Your task to perform on an android device: add a contact Image 0: 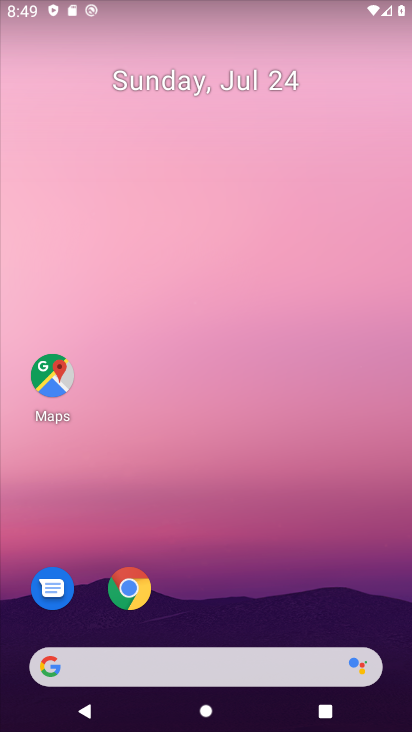
Step 0: drag from (330, 282) to (296, 57)
Your task to perform on an android device: add a contact Image 1: 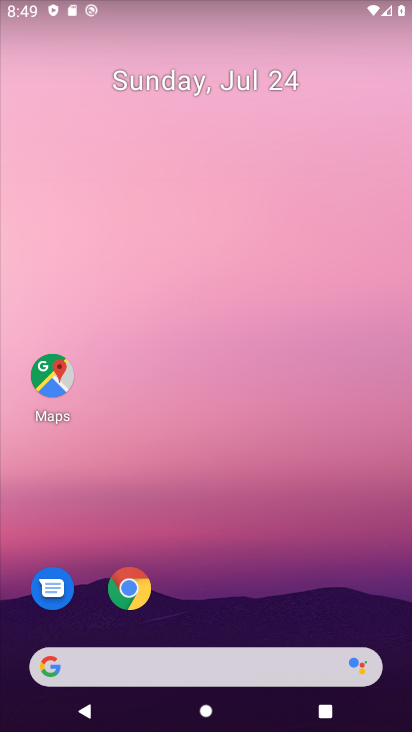
Step 1: drag from (269, 713) to (279, 33)
Your task to perform on an android device: add a contact Image 2: 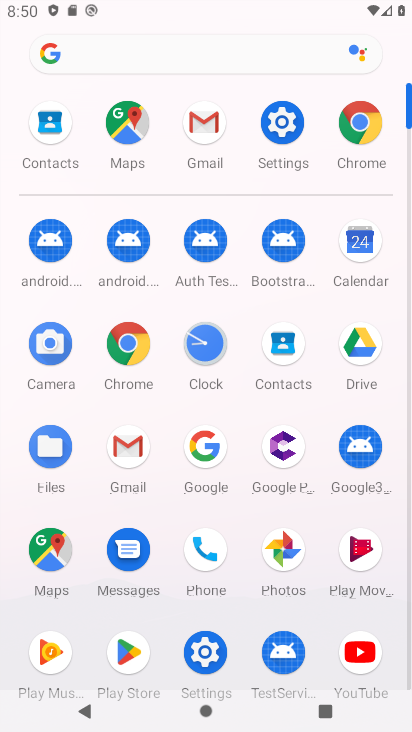
Step 2: click (267, 344)
Your task to perform on an android device: add a contact Image 3: 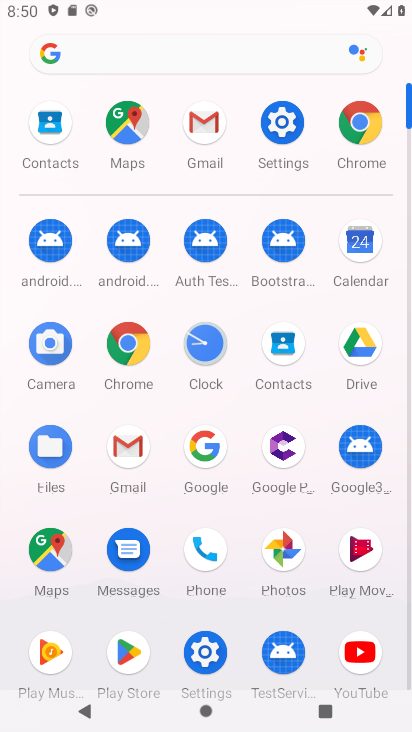
Step 3: click (267, 344)
Your task to perform on an android device: add a contact Image 4: 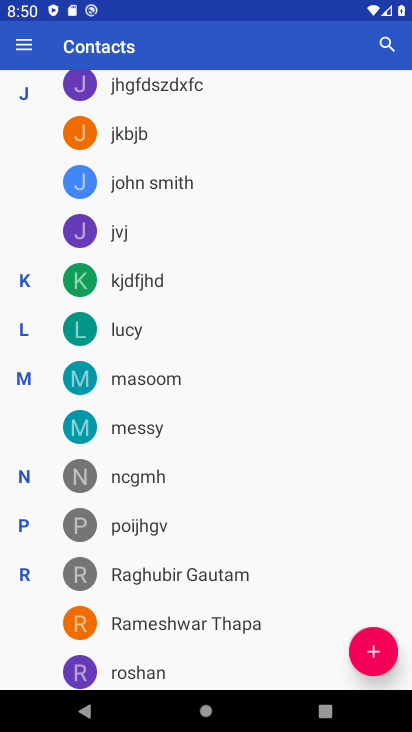
Step 4: click (375, 649)
Your task to perform on an android device: add a contact Image 5: 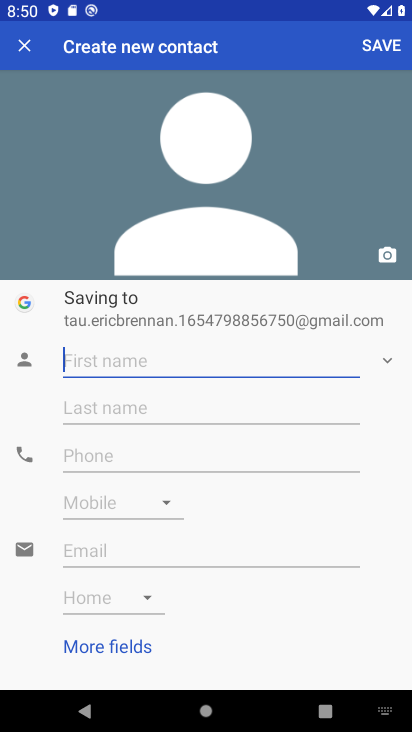
Step 5: type "fghjg"
Your task to perform on an android device: add a contact Image 6: 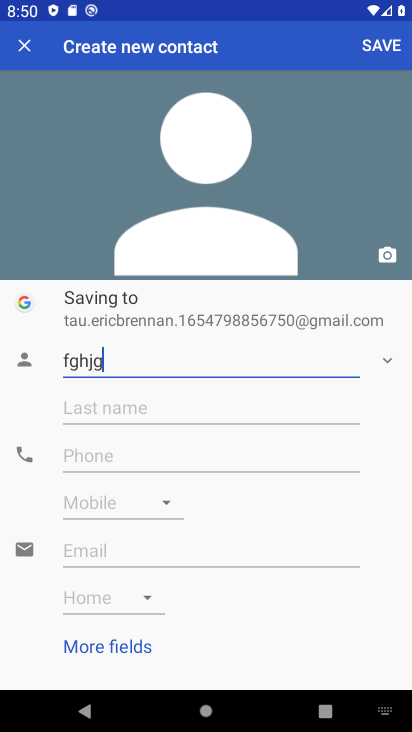
Step 6: click (188, 465)
Your task to perform on an android device: add a contact Image 7: 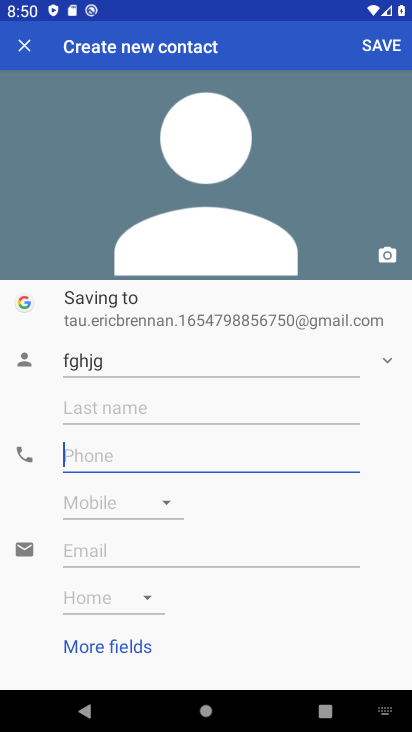
Step 7: type "657568"
Your task to perform on an android device: add a contact Image 8: 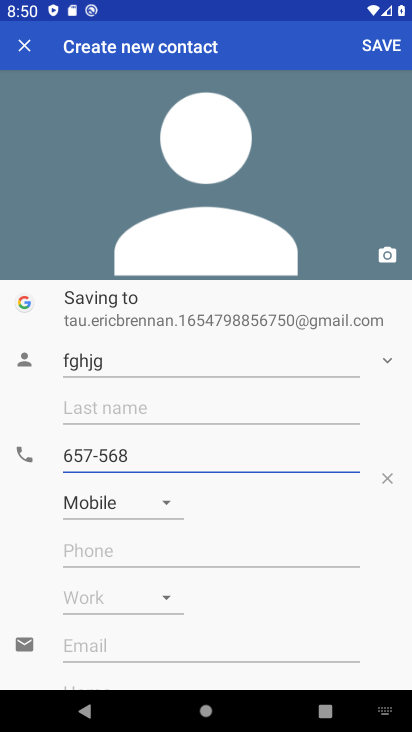
Step 8: click (388, 38)
Your task to perform on an android device: add a contact Image 9: 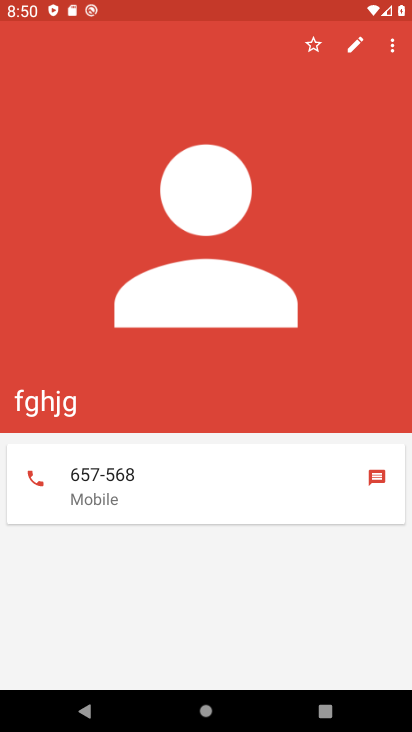
Step 9: task complete